Your task to perform on an android device: change the clock display to show seconds Image 0: 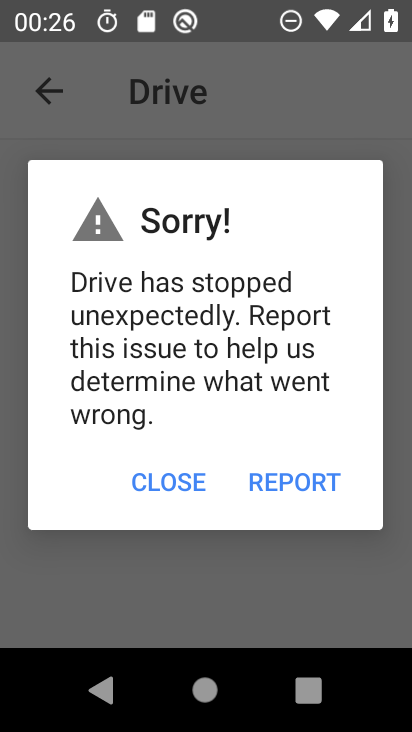
Step 0: press home button
Your task to perform on an android device: change the clock display to show seconds Image 1: 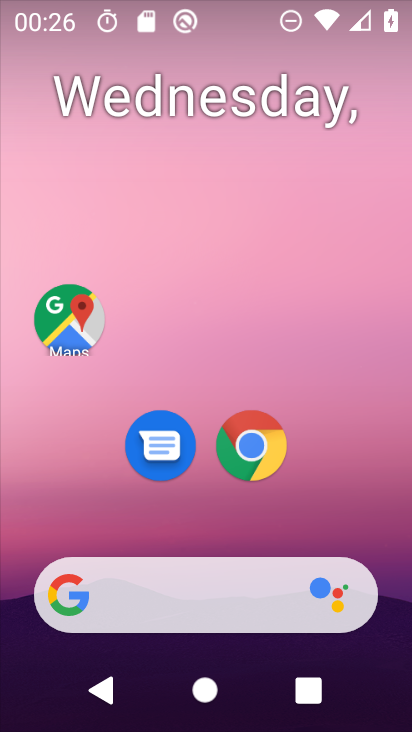
Step 1: drag from (319, 186) to (321, 94)
Your task to perform on an android device: change the clock display to show seconds Image 2: 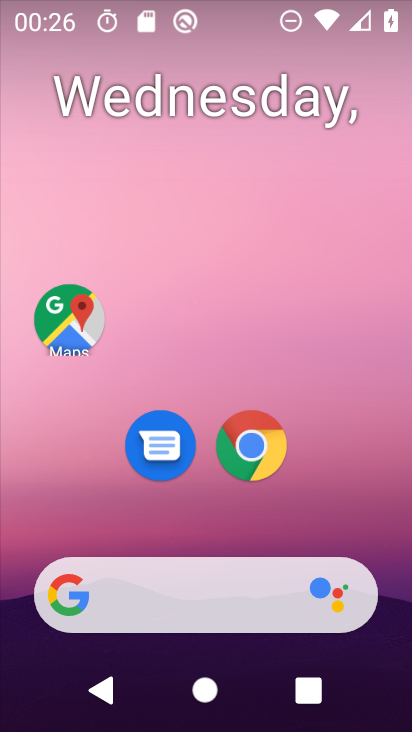
Step 2: drag from (248, 521) to (223, 29)
Your task to perform on an android device: change the clock display to show seconds Image 3: 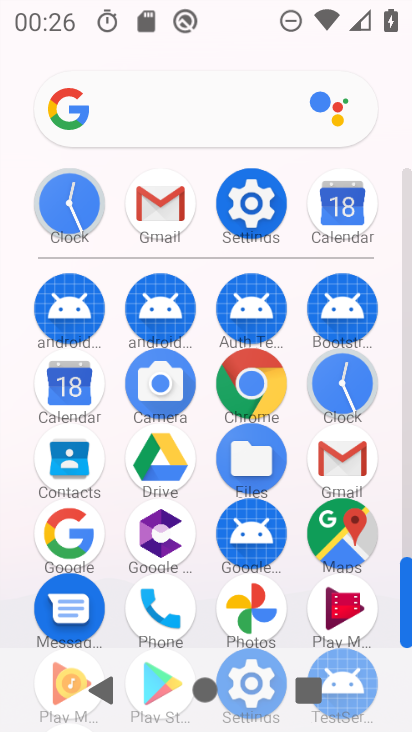
Step 3: click (335, 386)
Your task to perform on an android device: change the clock display to show seconds Image 4: 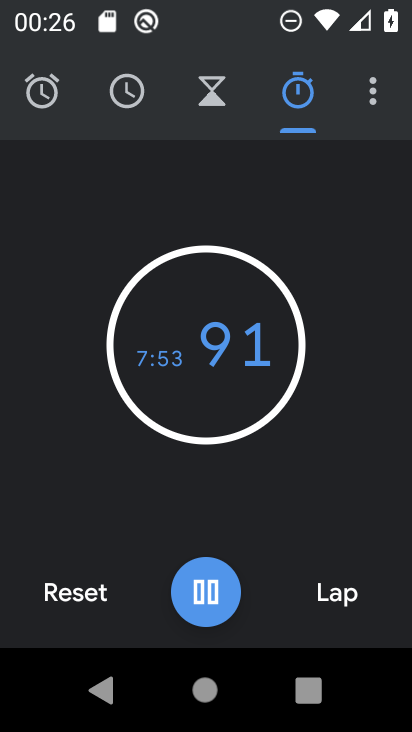
Step 4: click (364, 100)
Your task to perform on an android device: change the clock display to show seconds Image 5: 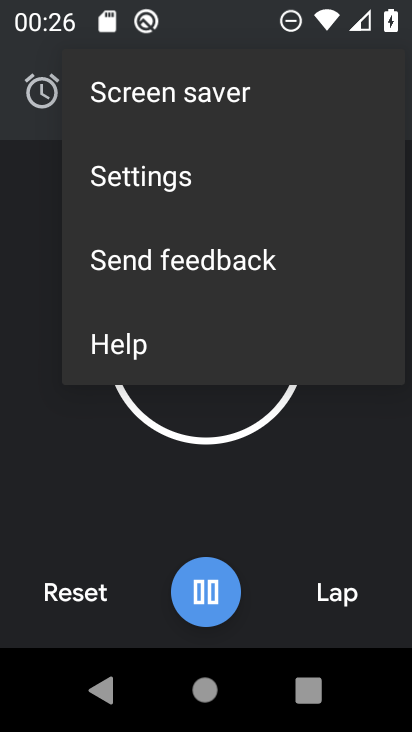
Step 5: click (210, 173)
Your task to perform on an android device: change the clock display to show seconds Image 6: 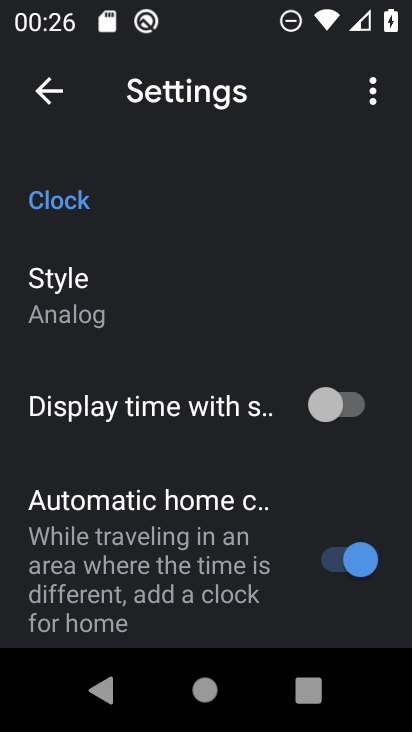
Step 6: click (365, 398)
Your task to perform on an android device: change the clock display to show seconds Image 7: 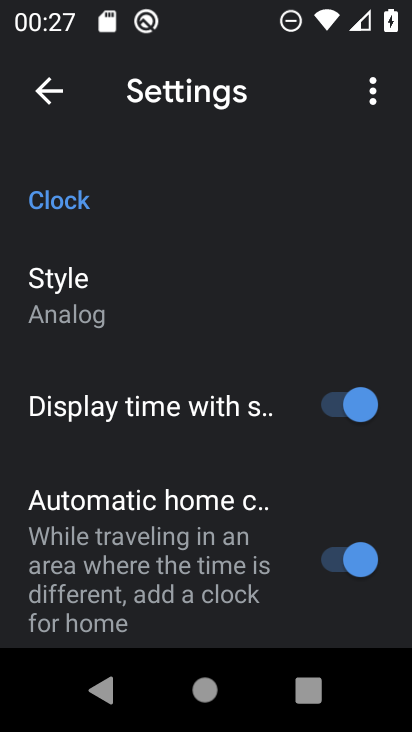
Step 7: task complete